Your task to perform on an android device: What's the latest technology news? Image 0: 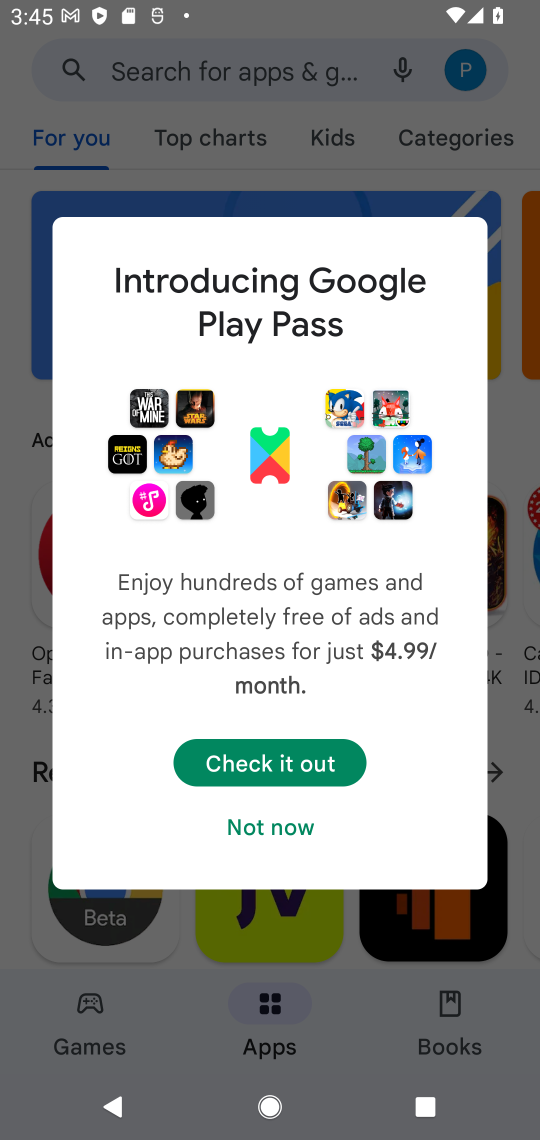
Step 0: press home button
Your task to perform on an android device: What's the latest technology news? Image 1: 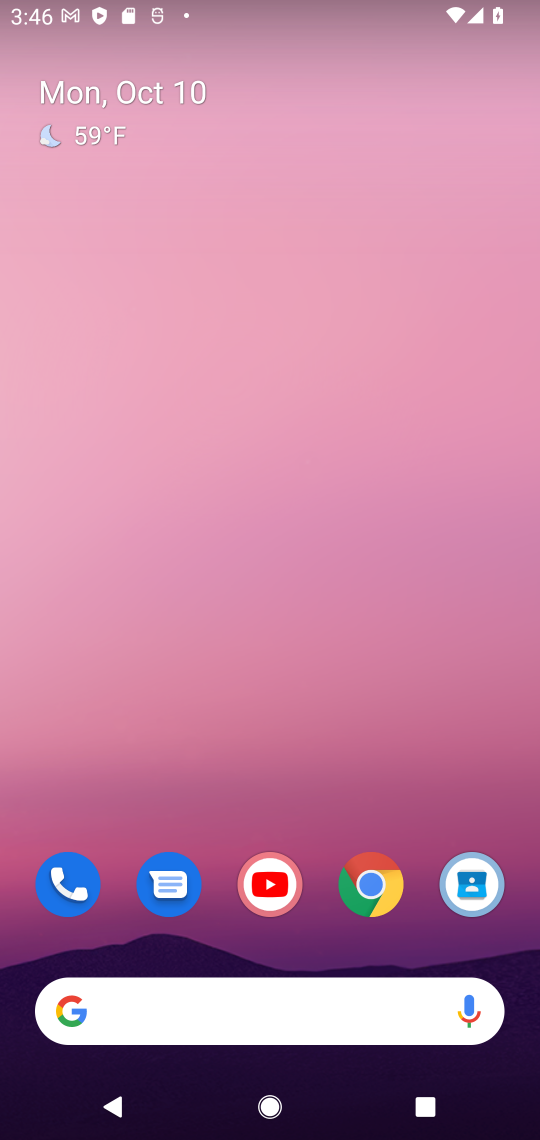
Step 1: click (178, 1008)
Your task to perform on an android device: What's the latest technology news? Image 2: 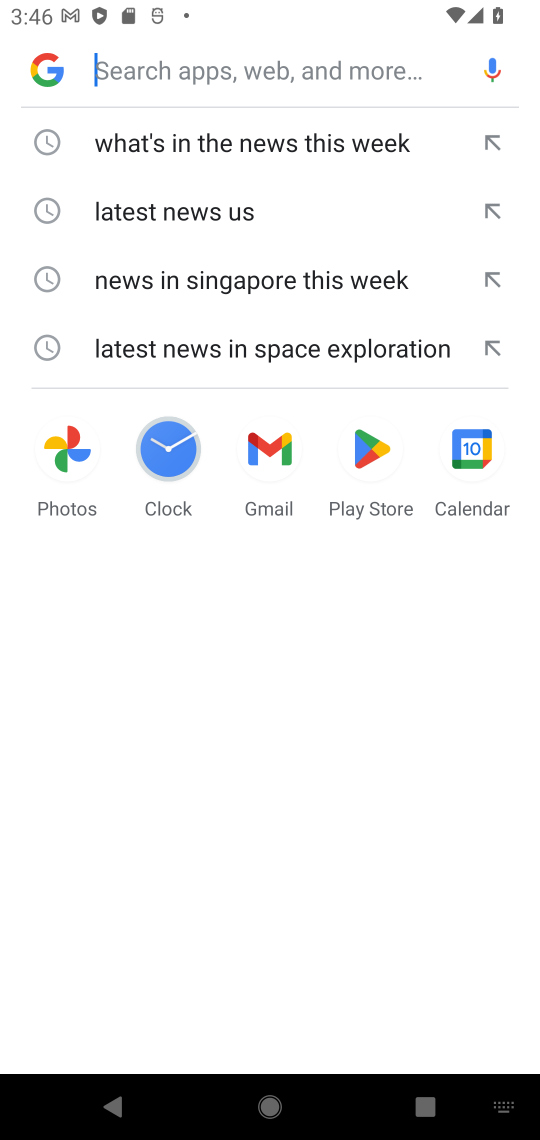
Step 2: click (110, 68)
Your task to perform on an android device: What's the latest technology news? Image 3: 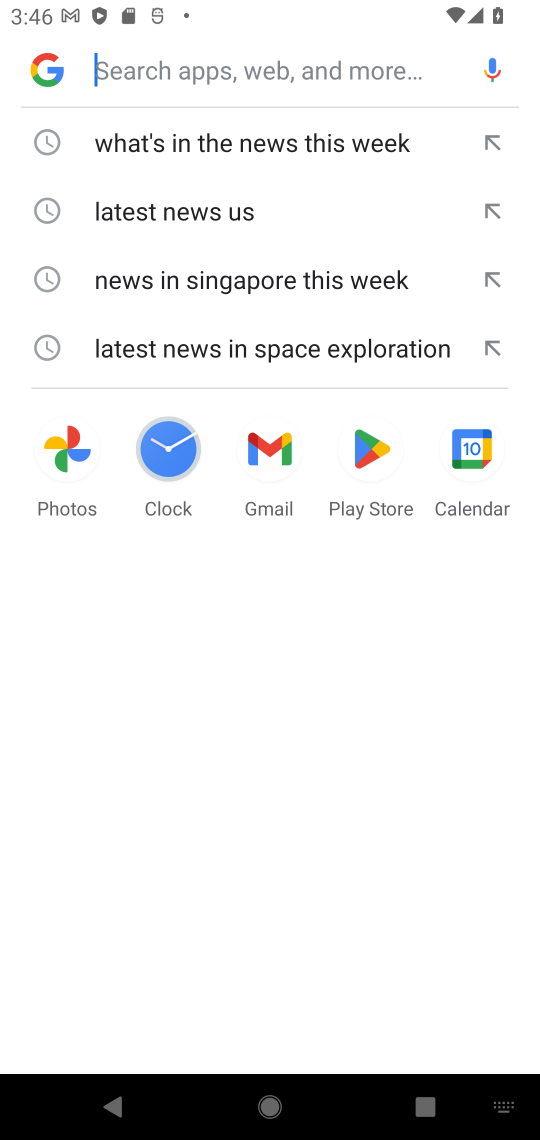
Step 3: type "What's the latest technology news?"
Your task to perform on an android device: What's the latest technology news? Image 4: 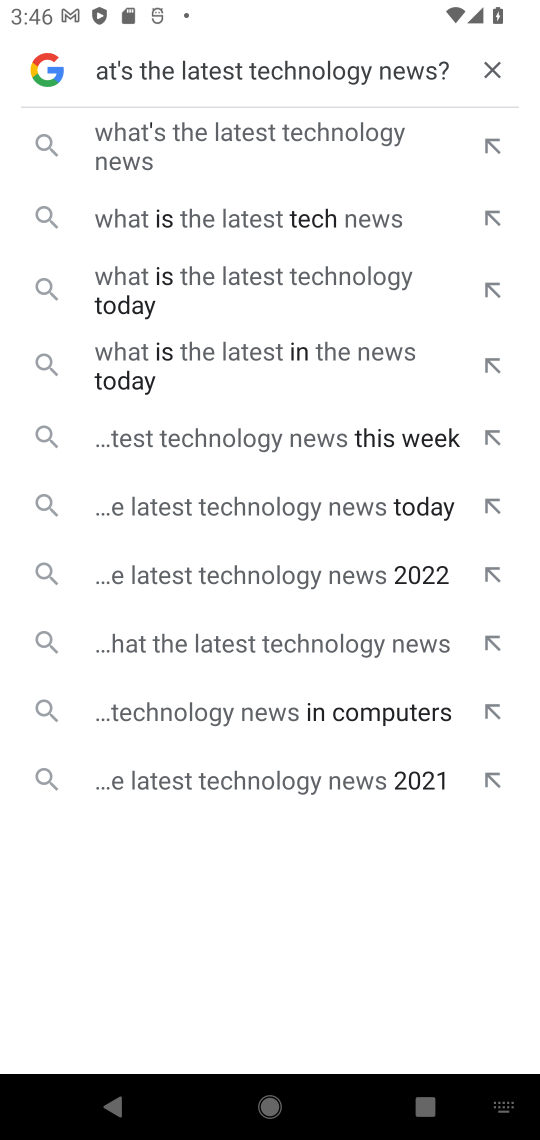
Step 4: click (175, 134)
Your task to perform on an android device: What's the latest technology news? Image 5: 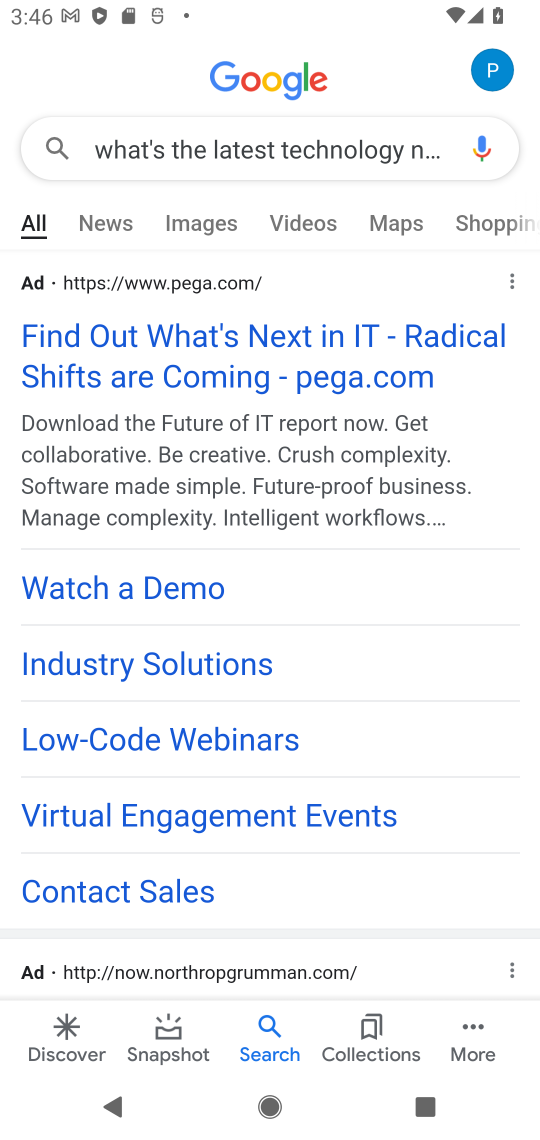
Step 5: drag from (268, 785) to (234, 372)
Your task to perform on an android device: What's the latest technology news? Image 6: 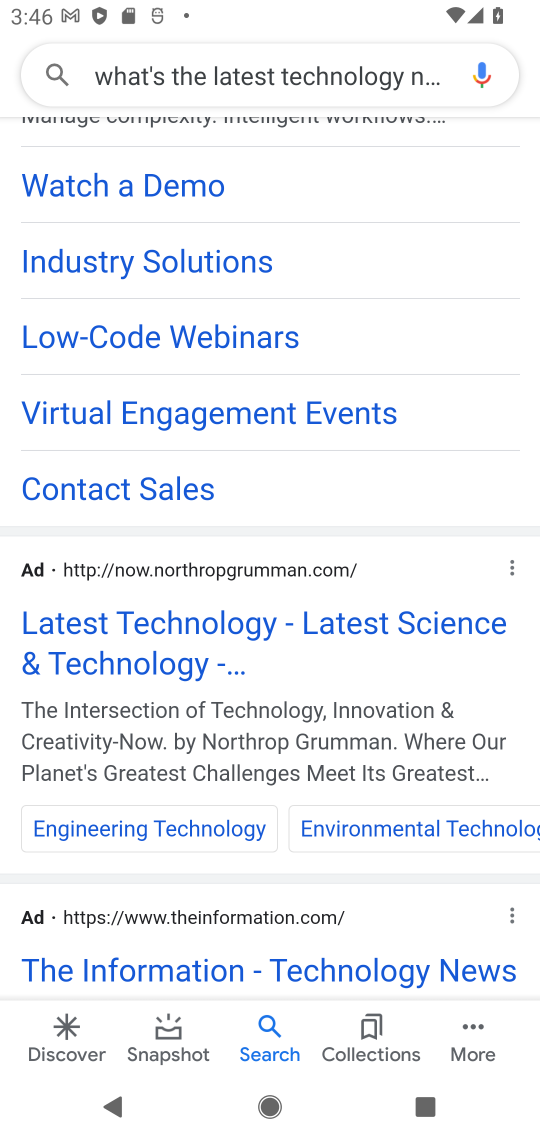
Step 6: click (194, 681)
Your task to perform on an android device: What's the latest technology news? Image 7: 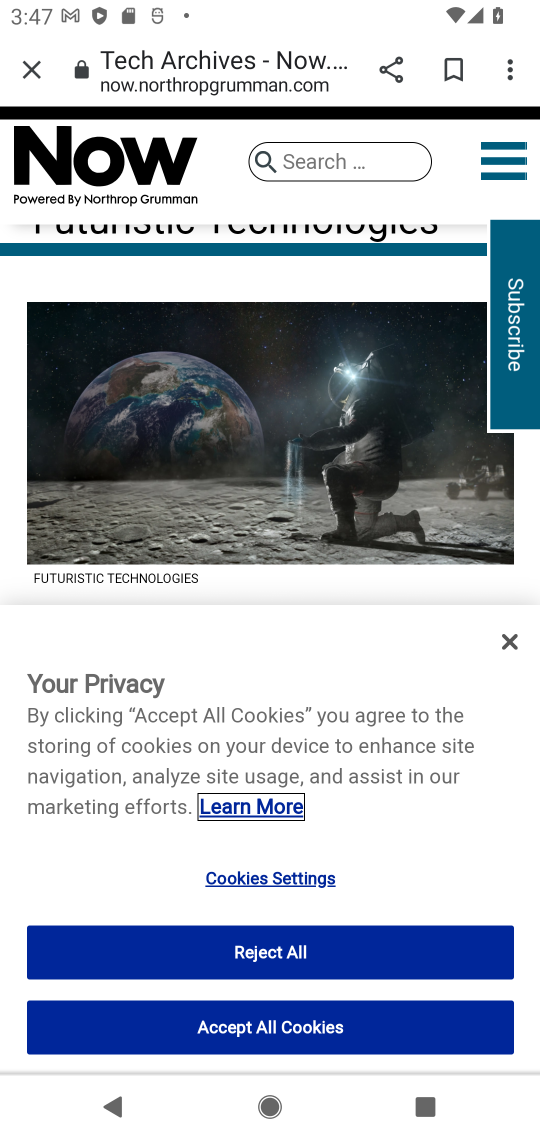
Step 7: task complete